Your task to perform on an android device: Open Android settings Image 0: 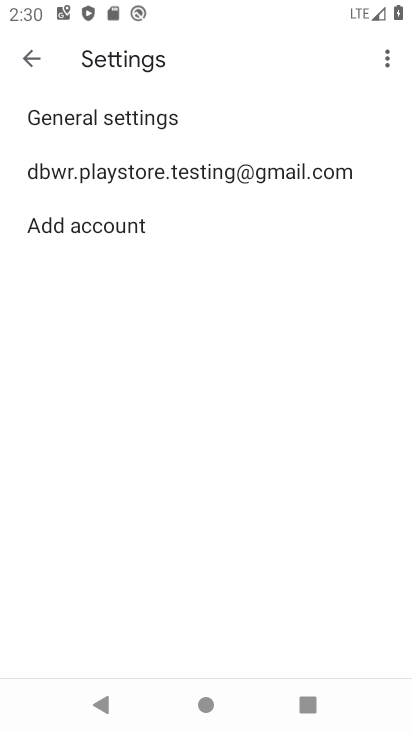
Step 0: click (39, 44)
Your task to perform on an android device: Open Android settings Image 1: 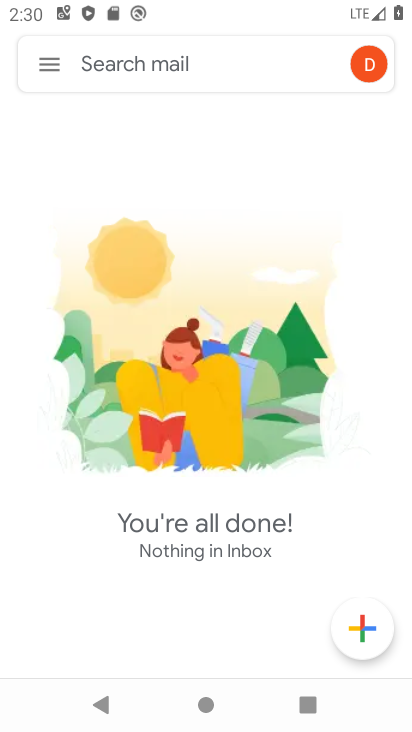
Step 1: press home button
Your task to perform on an android device: Open Android settings Image 2: 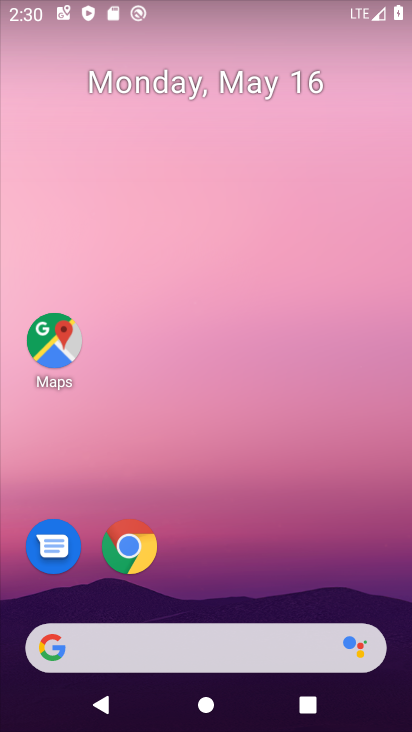
Step 2: drag from (208, 428) to (225, 248)
Your task to perform on an android device: Open Android settings Image 3: 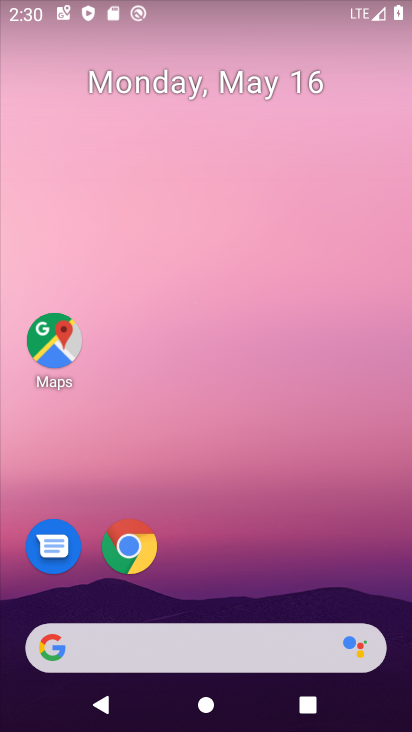
Step 3: drag from (259, 667) to (277, 131)
Your task to perform on an android device: Open Android settings Image 4: 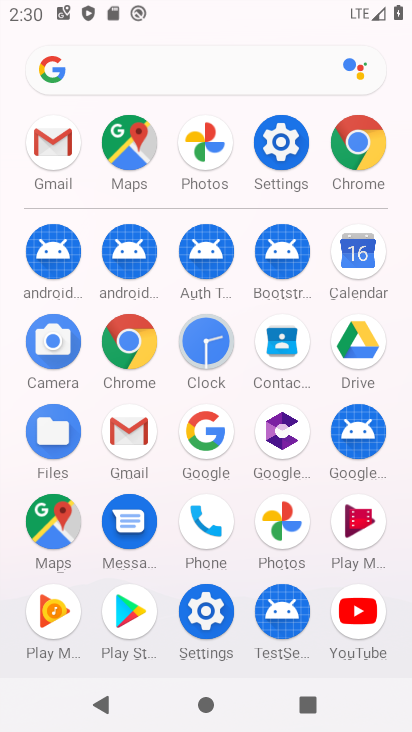
Step 4: click (276, 148)
Your task to perform on an android device: Open Android settings Image 5: 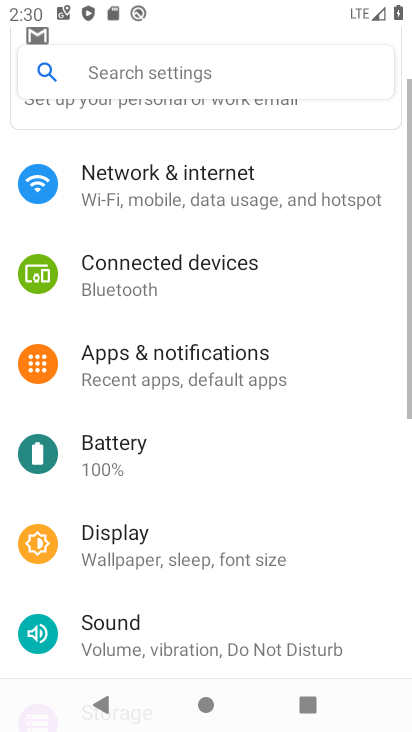
Step 5: click (134, 80)
Your task to perform on an android device: Open Android settings Image 6: 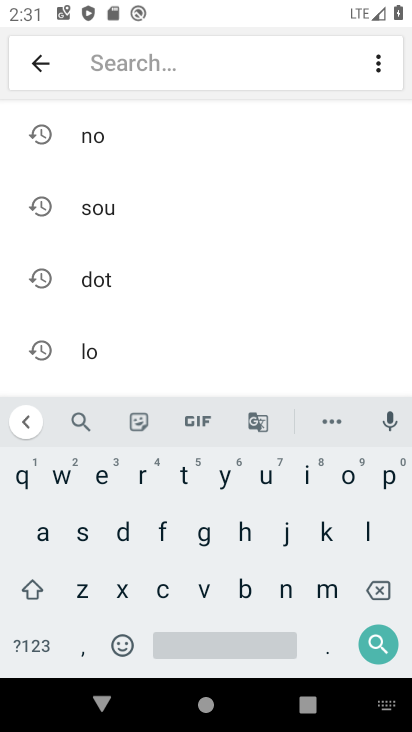
Step 6: click (36, 533)
Your task to perform on an android device: Open Android settings Image 7: 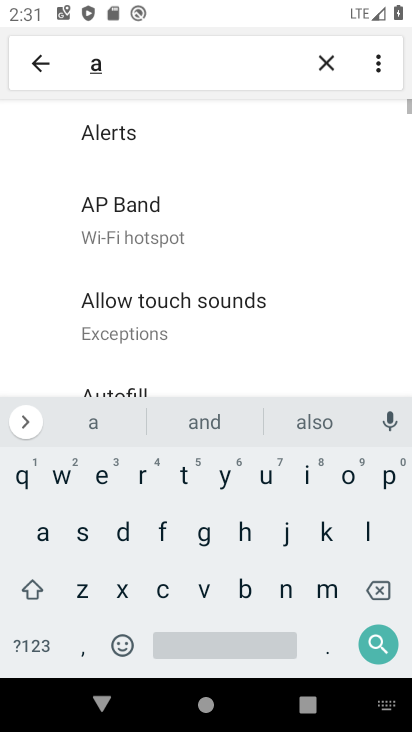
Step 7: click (281, 592)
Your task to perform on an android device: Open Android settings Image 8: 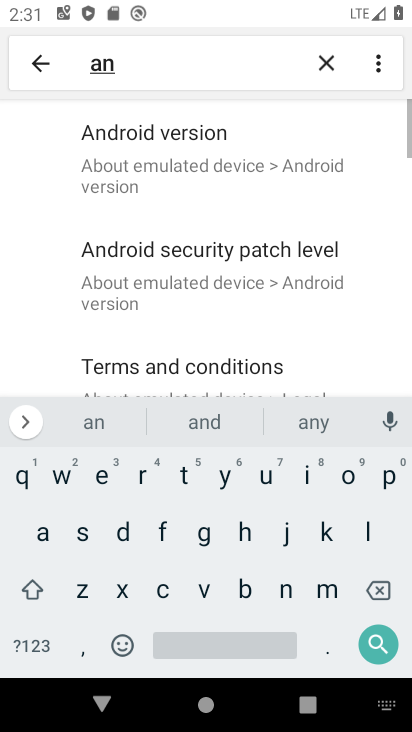
Step 8: click (173, 150)
Your task to perform on an android device: Open Android settings Image 9: 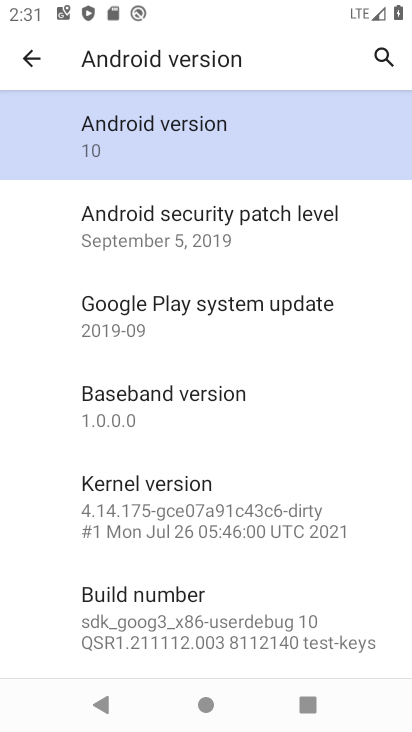
Step 9: task complete